Your task to perform on an android device: Open eBay Image 0: 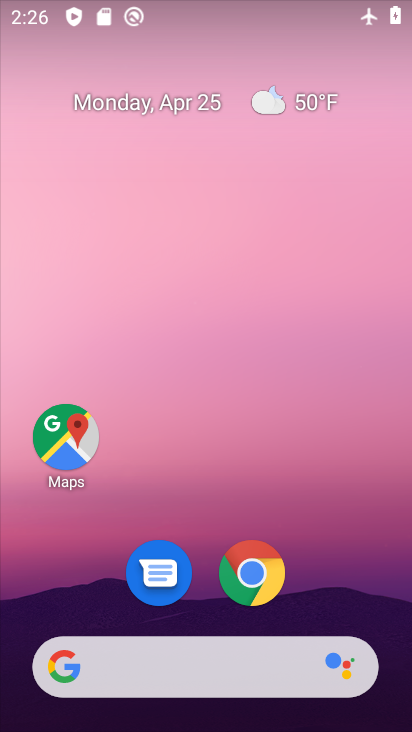
Step 0: click (262, 572)
Your task to perform on an android device: Open eBay Image 1: 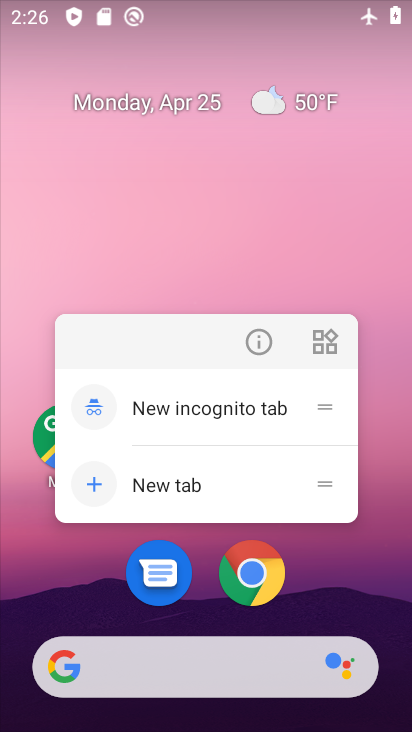
Step 1: click (264, 557)
Your task to perform on an android device: Open eBay Image 2: 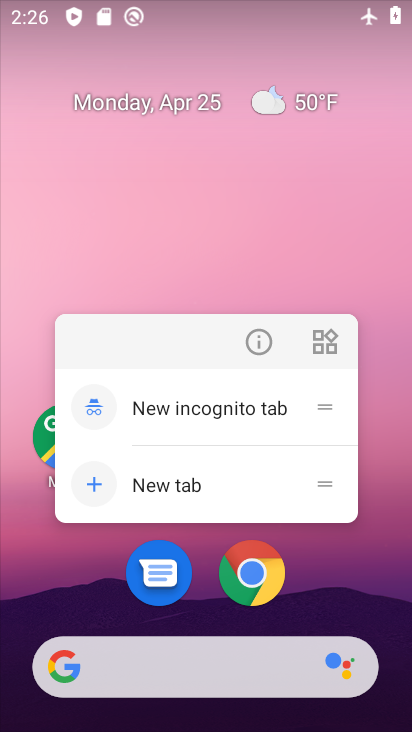
Step 2: click (264, 557)
Your task to perform on an android device: Open eBay Image 3: 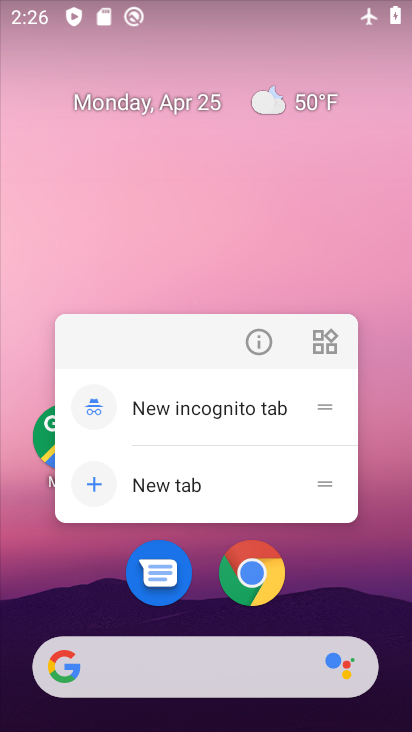
Step 3: click (264, 554)
Your task to perform on an android device: Open eBay Image 4: 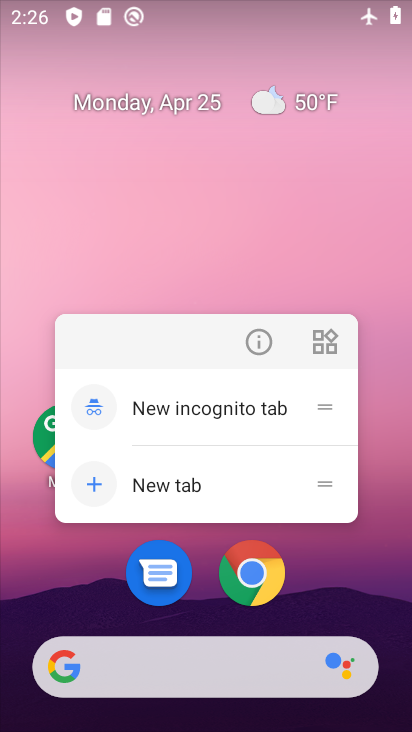
Step 4: click (264, 551)
Your task to perform on an android device: Open eBay Image 5: 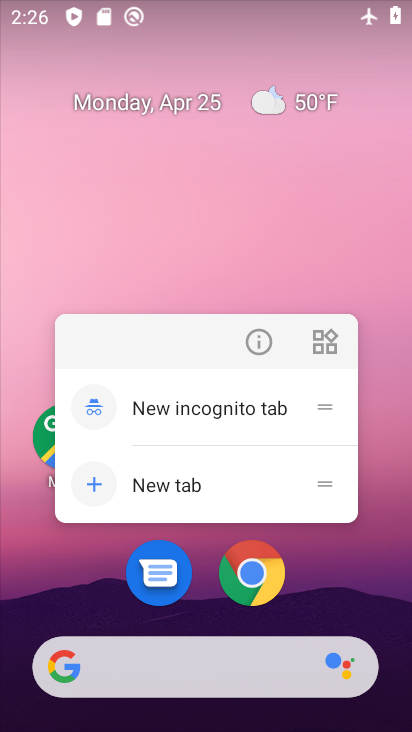
Step 5: click (264, 550)
Your task to perform on an android device: Open eBay Image 6: 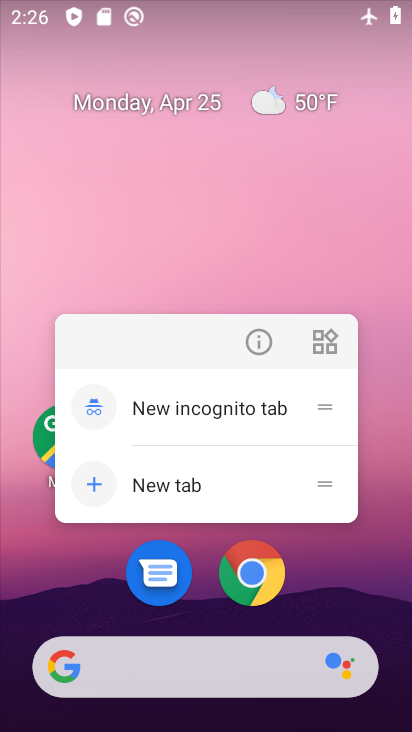
Step 6: click (247, 567)
Your task to perform on an android device: Open eBay Image 7: 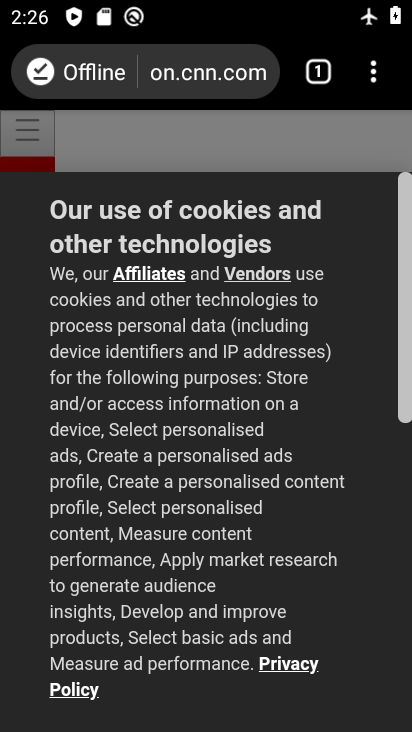
Step 7: click (373, 79)
Your task to perform on an android device: Open eBay Image 8: 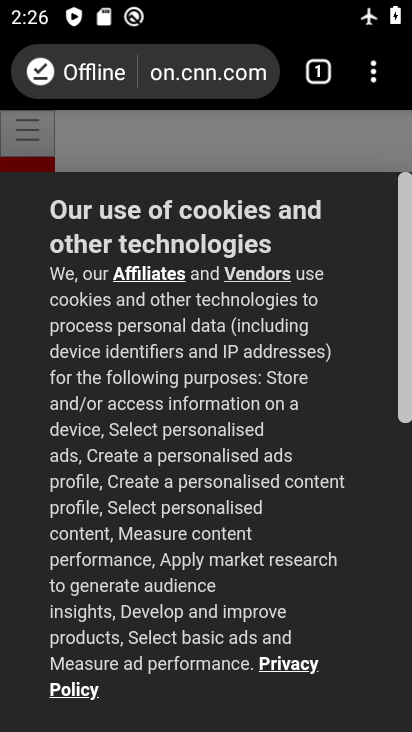
Step 8: click (373, 78)
Your task to perform on an android device: Open eBay Image 9: 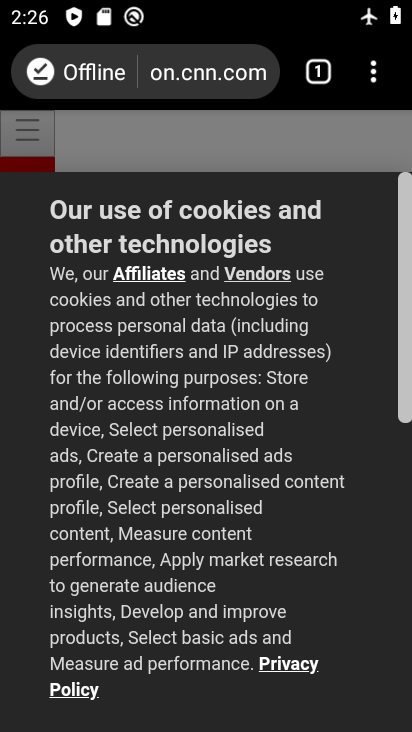
Step 9: drag from (380, 74) to (108, 229)
Your task to perform on an android device: Open eBay Image 10: 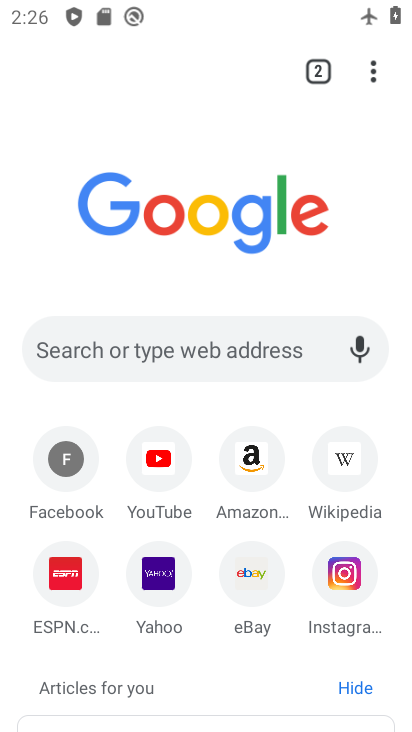
Step 10: click (248, 581)
Your task to perform on an android device: Open eBay Image 11: 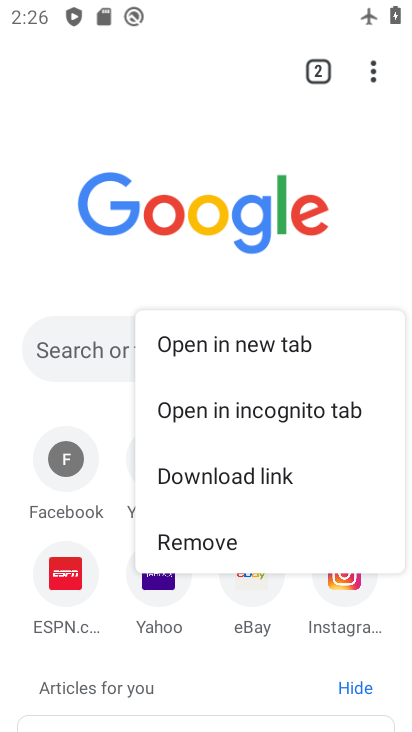
Step 11: click (248, 581)
Your task to perform on an android device: Open eBay Image 12: 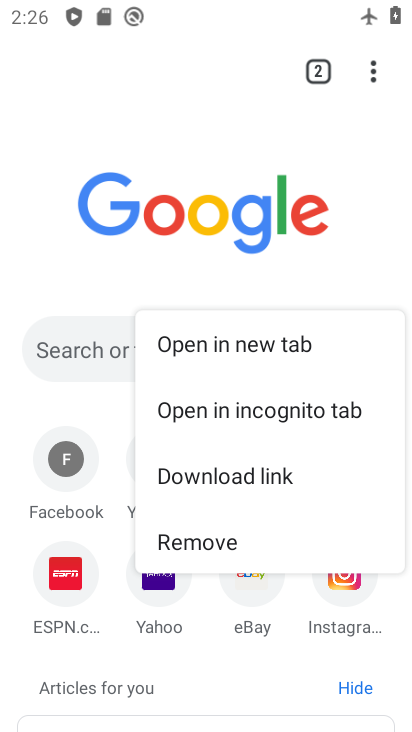
Step 12: click (257, 618)
Your task to perform on an android device: Open eBay Image 13: 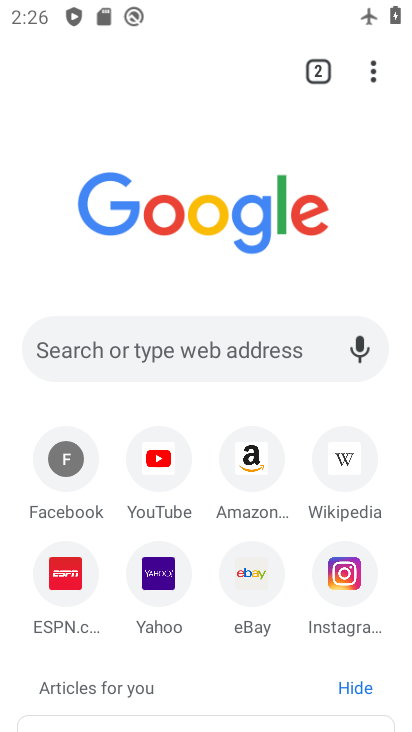
Step 13: click (255, 621)
Your task to perform on an android device: Open eBay Image 14: 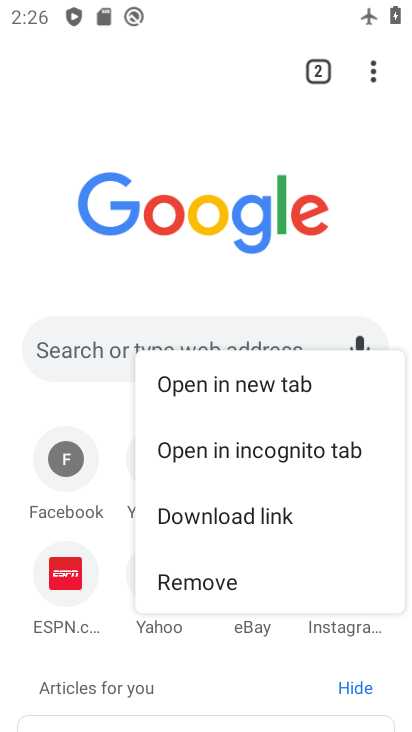
Step 14: click (255, 621)
Your task to perform on an android device: Open eBay Image 15: 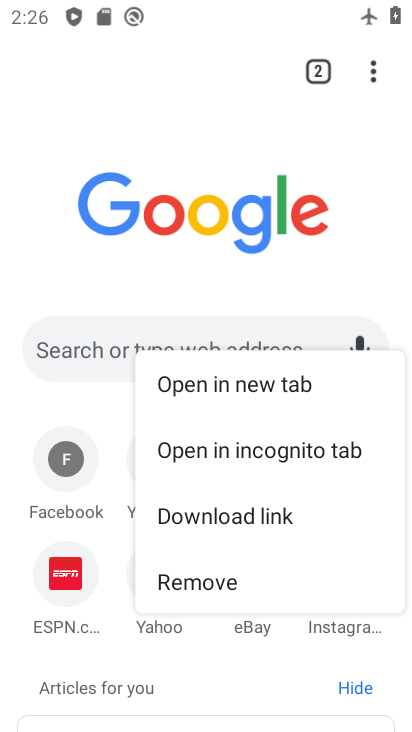
Step 15: click (255, 621)
Your task to perform on an android device: Open eBay Image 16: 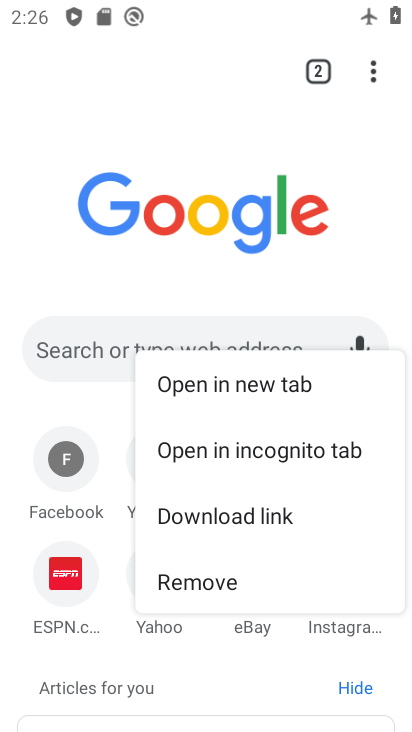
Step 16: click (255, 620)
Your task to perform on an android device: Open eBay Image 17: 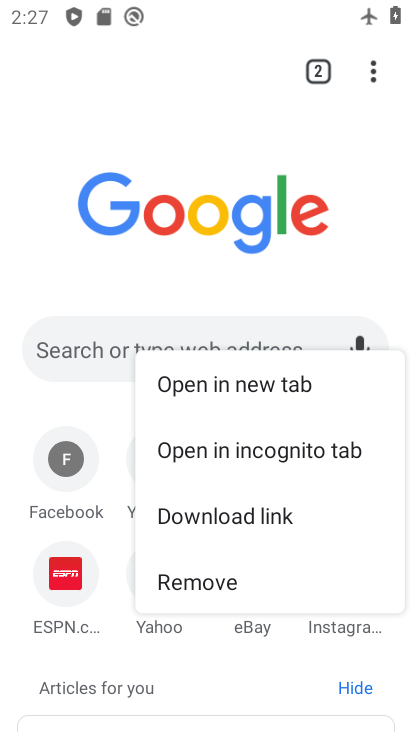
Step 17: click (255, 620)
Your task to perform on an android device: Open eBay Image 18: 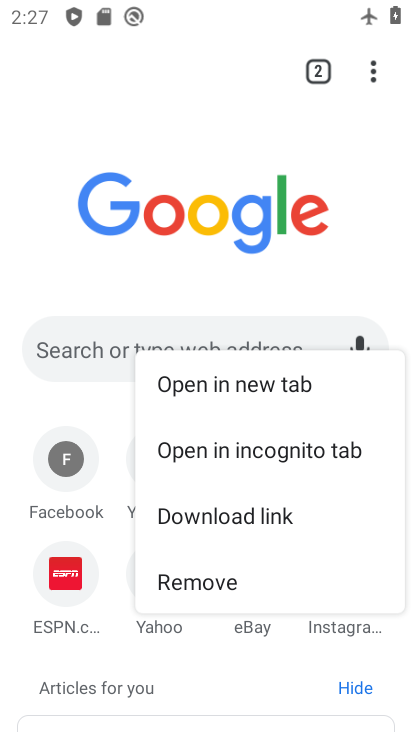
Step 18: click (251, 633)
Your task to perform on an android device: Open eBay Image 19: 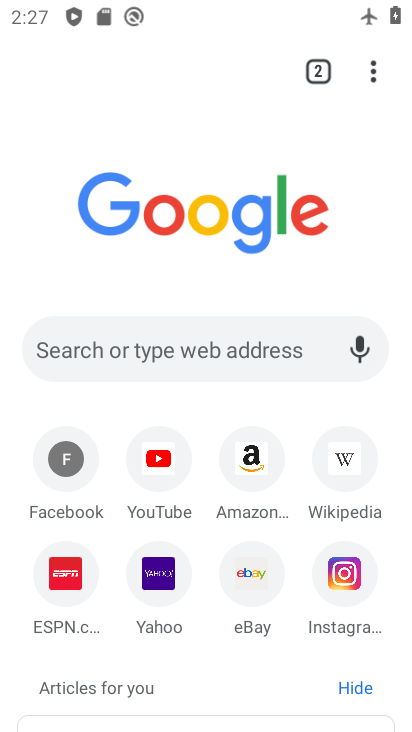
Step 19: click (238, 601)
Your task to perform on an android device: Open eBay Image 20: 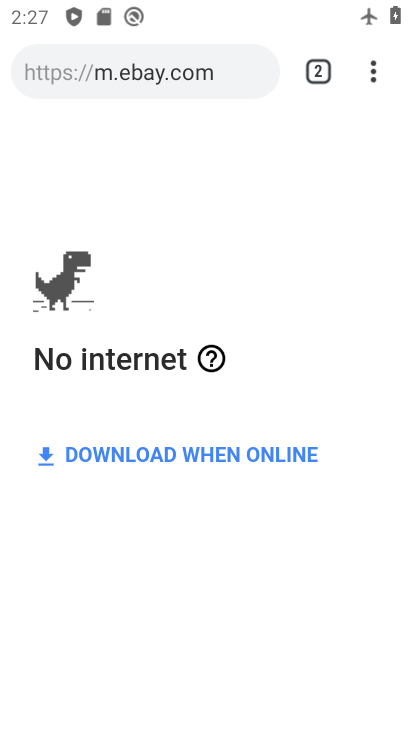
Step 20: task complete